Your task to perform on an android device: What's the weather going to be this weekend? Image 0: 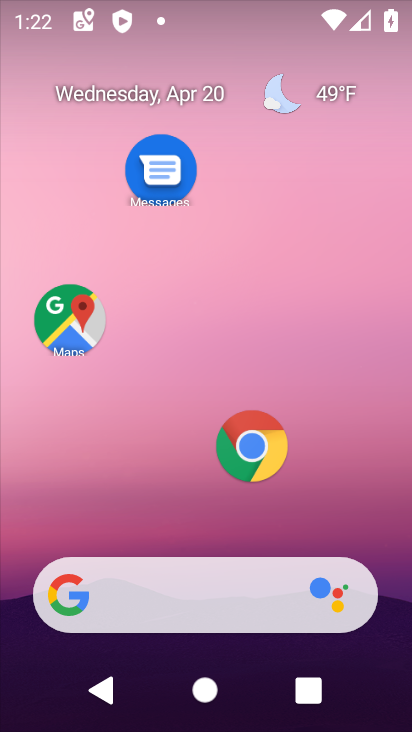
Step 0: drag from (207, 486) to (235, 42)
Your task to perform on an android device: What's the weather going to be this weekend? Image 1: 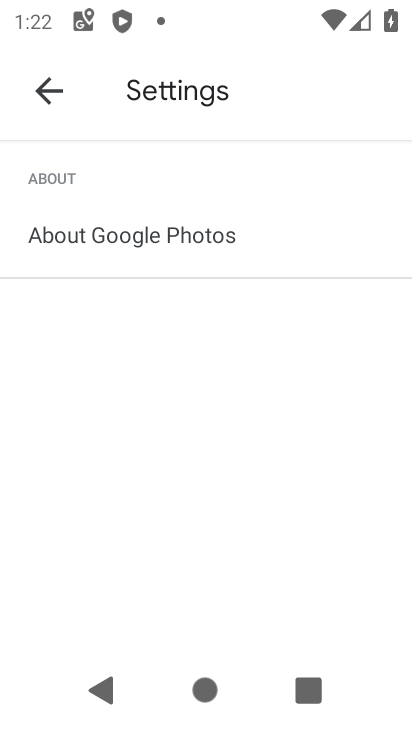
Step 1: press home button
Your task to perform on an android device: What's the weather going to be this weekend? Image 2: 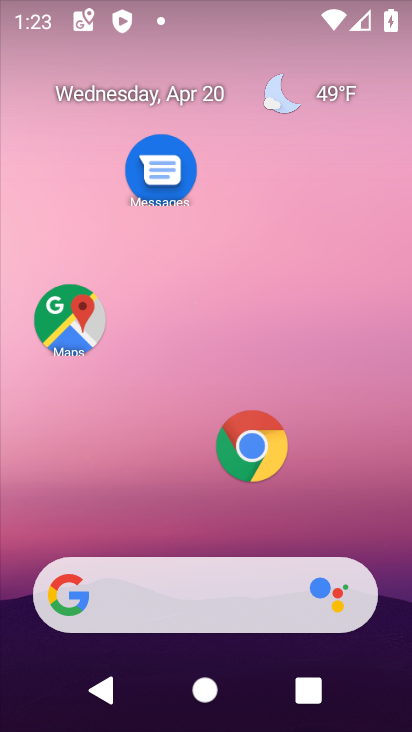
Step 2: click (305, 96)
Your task to perform on an android device: What's the weather going to be this weekend? Image 3: 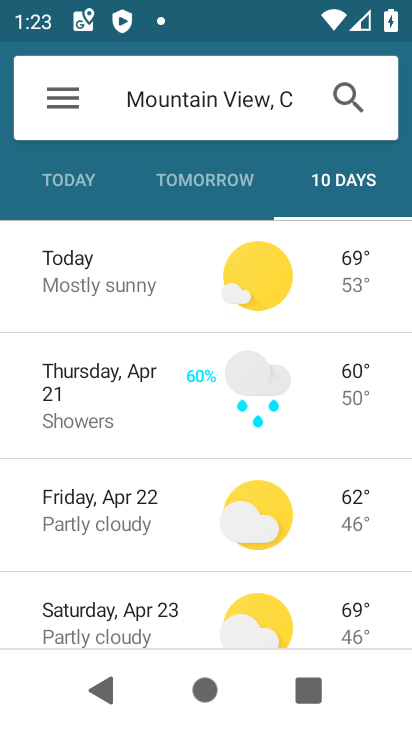
Step 3: task complete